Your task to perform on an android device: toggle improve location accuracy Image 0: 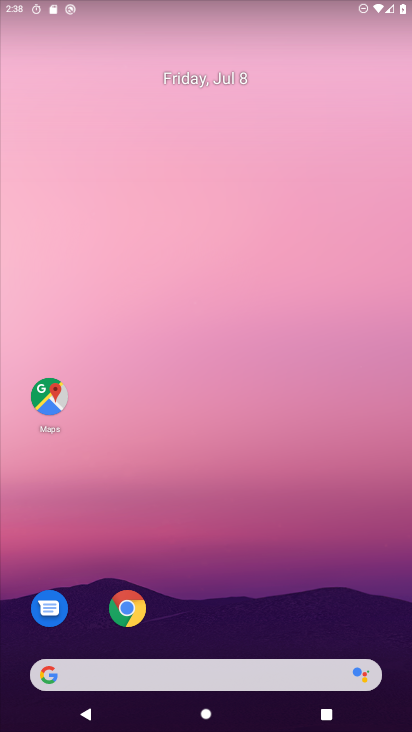
Step 0: drag from (250, 603) to (250, 102)
Your task to perform on an android device: toggle improve location accuracy Image 1: 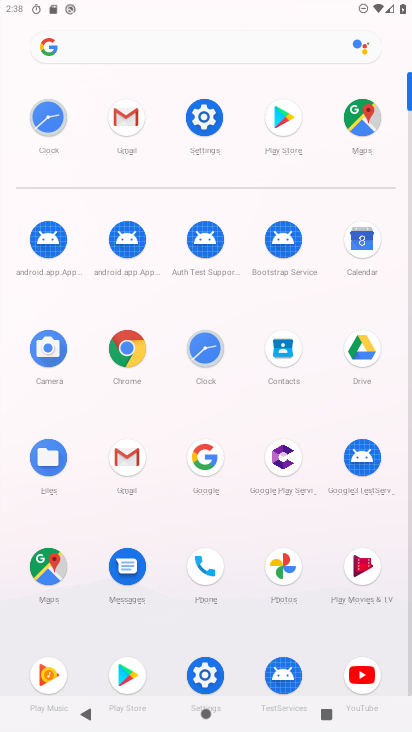
Step 1: click (208, 118)
Your task to perform on an android device: toggle improve location accuracy Image 2: 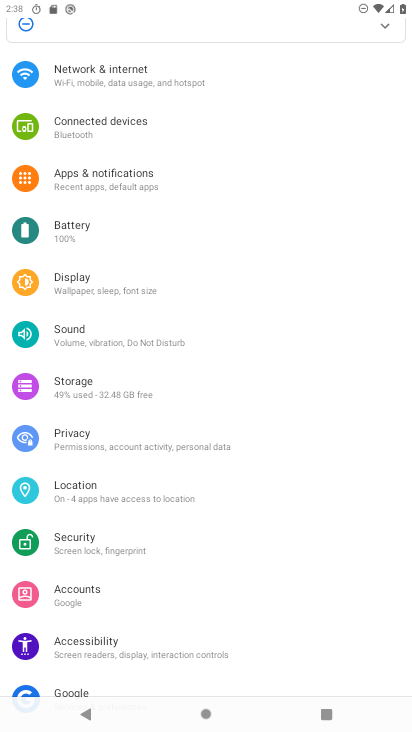
Step 2: click (85, 494)
Your task to perform on an android device: toggle improve location accuracy Image 3: 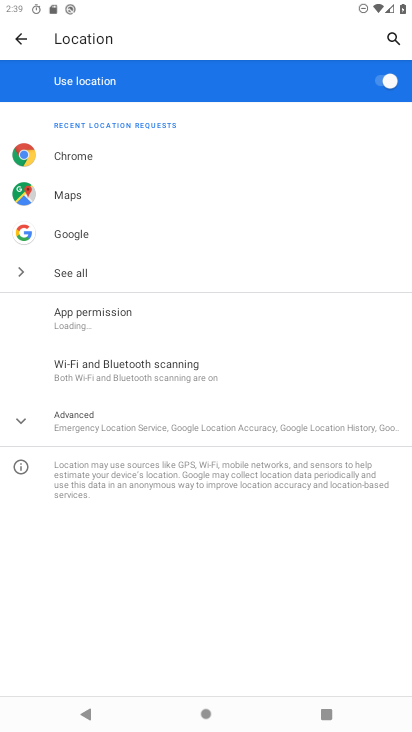
Step 3: click (96, 416)
Your task to perform on an android device: toggle improve location accuracy Image 4: 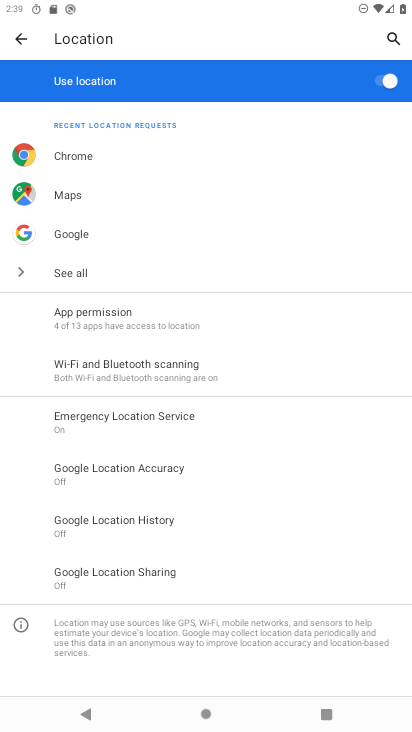
Step 4: click (117, 468)
Your task to perform on an android device: toggle improve location accuracy Image 5: 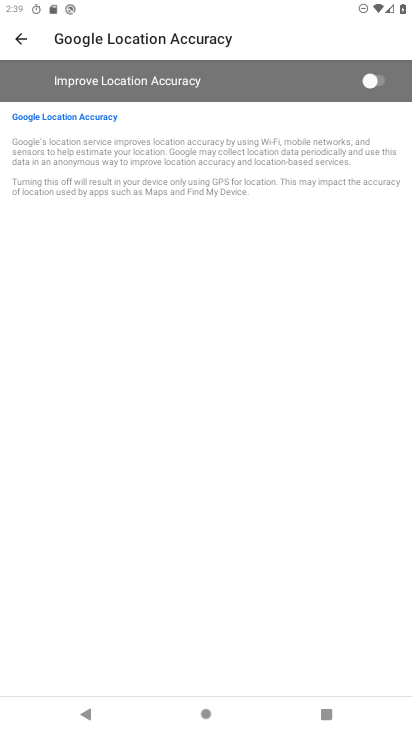
Step 5: click (373, 81)
Your task to perform on an android device: toggle improve location accuracy Image 6: 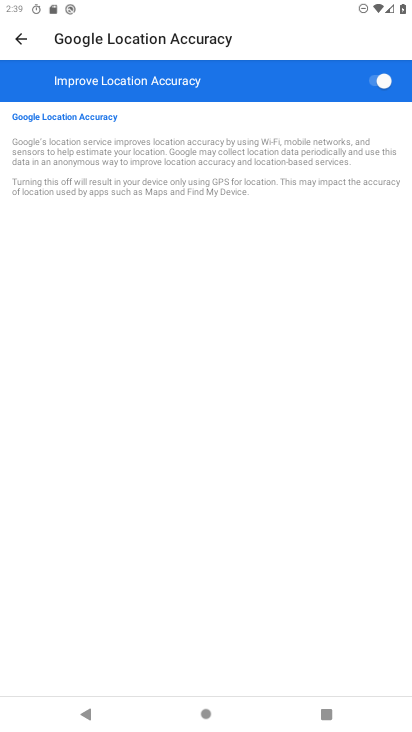
Step 6: task complete